Your task to perform on an android device: turn off notifications in google photos Image 0: 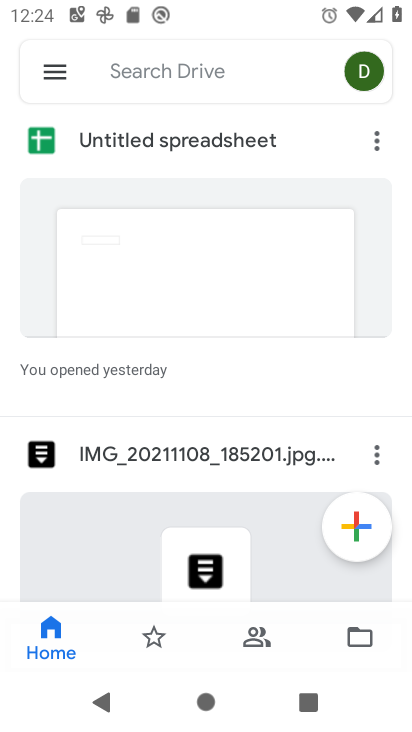
Step 0: press home button
Your task to perform on an android device: turn off notifications in google photos Image 1: 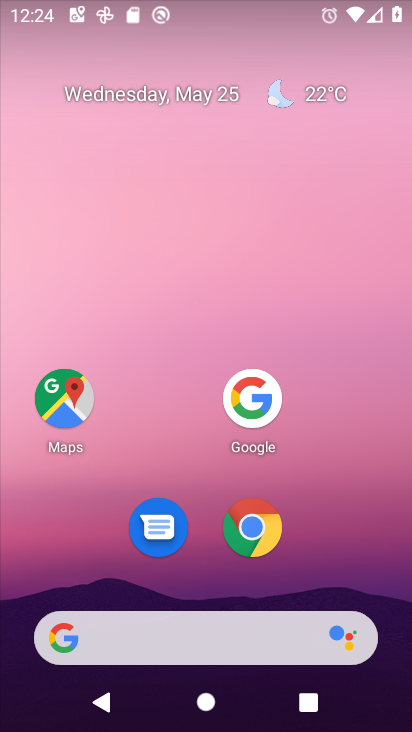
Step 1: drag from (193, 632) to (340, 114)
Your task to perform on an android device: turn off notifications in google photos Image 2: 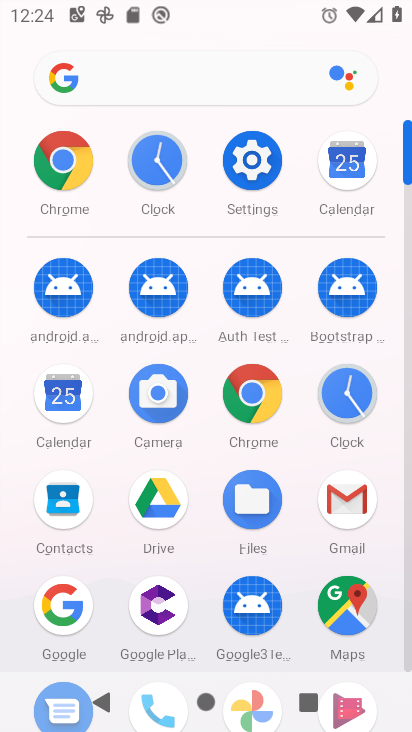
Step 2: drag from (197, 582) to (340, 207)
Your task to perform on an android device: turn off notifications in google photos Image 3: 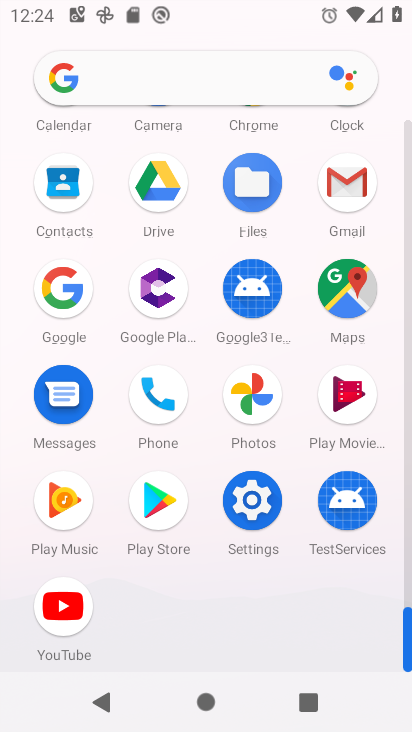
Step 3: click (257, 403)
Your task to perform on an android device: turn off notifications in google photos Image 4: 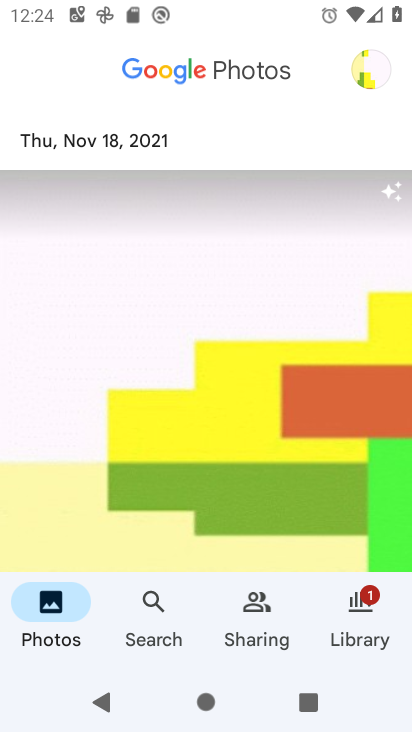
Step 4: click (377, 78)
Your task to perform on an android device: turn off notifications in google photos Image 5: 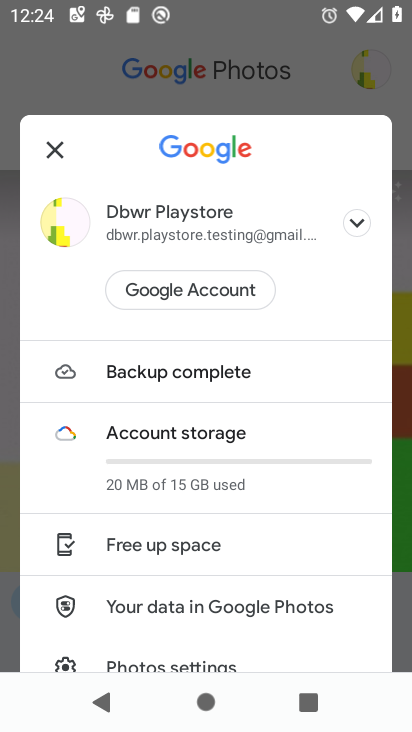
Step 5: drag from (237, 580) to (306, 298)
Your task to perform on an android device: turn off notifications in google photos Image 6: 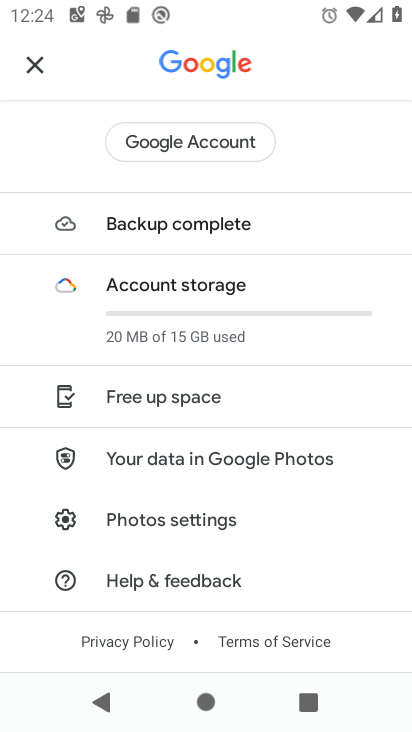
Step 6: click (217, 520)
Your task to perform on an android device: turn off notifications in google photos Image 7: 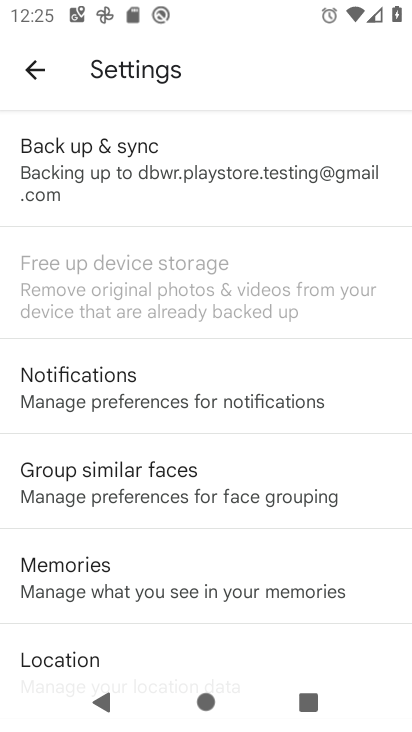
Step 7: click (104, 387)
Your task to perform on an android device: turn off notifications in google photos Image 8: 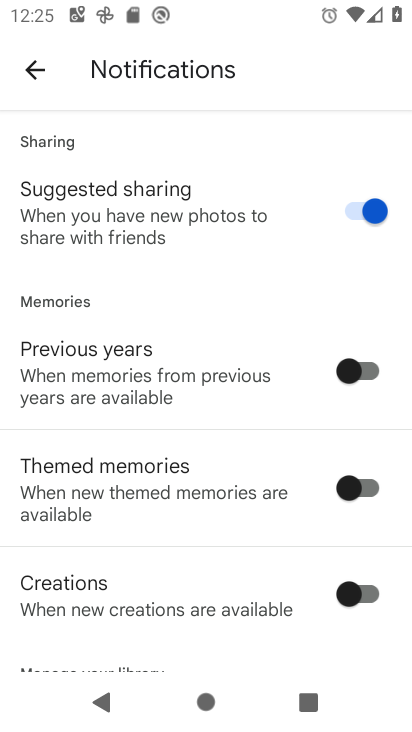
Step 8: drag from (163, 599) to (267, 266)
Your task to perform on an android device: turn off notifications in google photos Image 9: 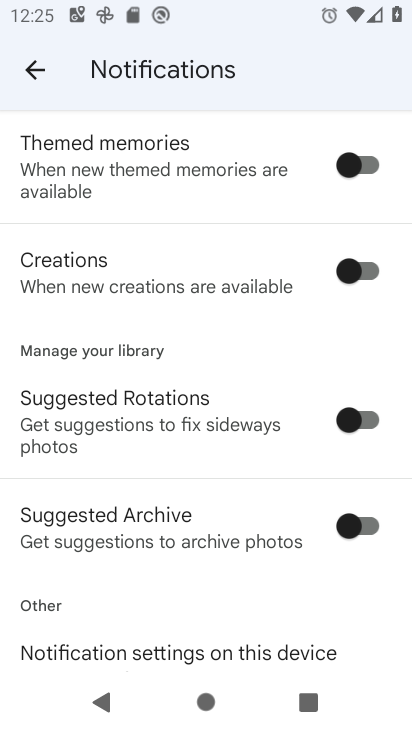
Step 9: drag from (166, 592) to (300, 103)
Your task to perform on an android device: turn off notifications in google photos Image 10: 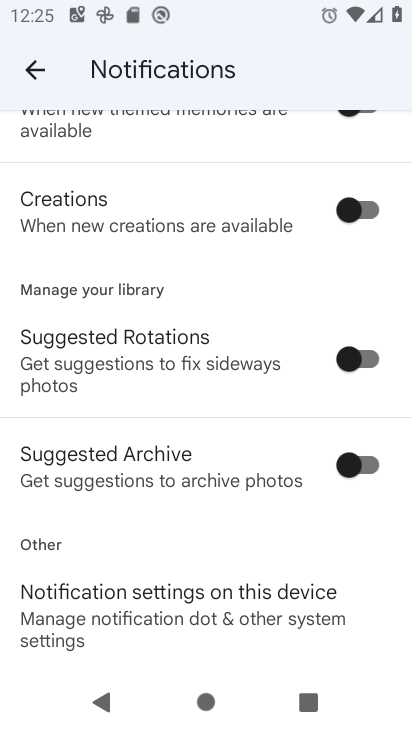
Step 10: click (157, 619)
Your task to perform on an android device: turn off notifications in google photos Image 11: 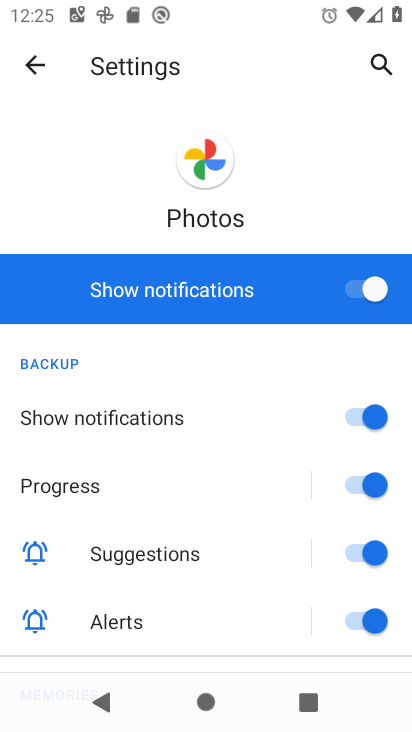
Step 11: click (353, 291)
Your task to perform on an android device: turn off notifications in google photos Image 12: 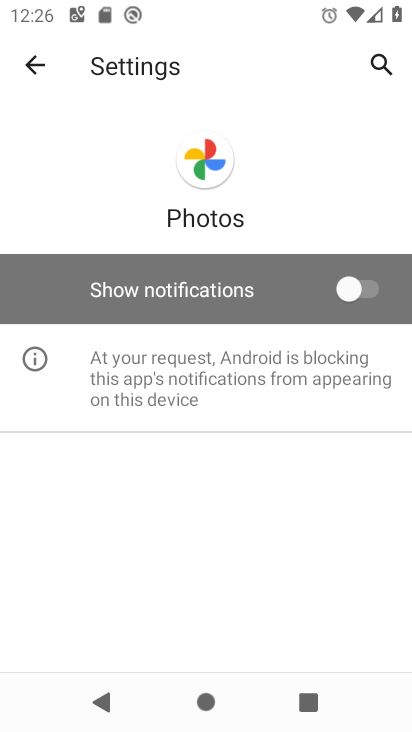
Step 12: task complete